Your task to perform on an android device: What is the news today? Image 0: 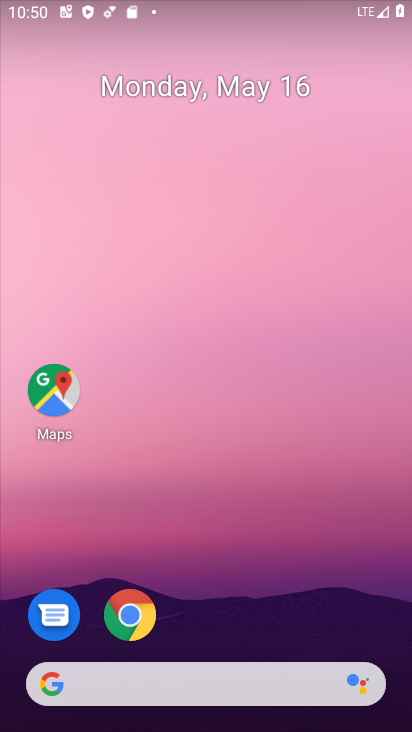
Step 0: drag from (261, 628) to (234, 157)
Your task to perform on an android device: What is the news today? Image 1: 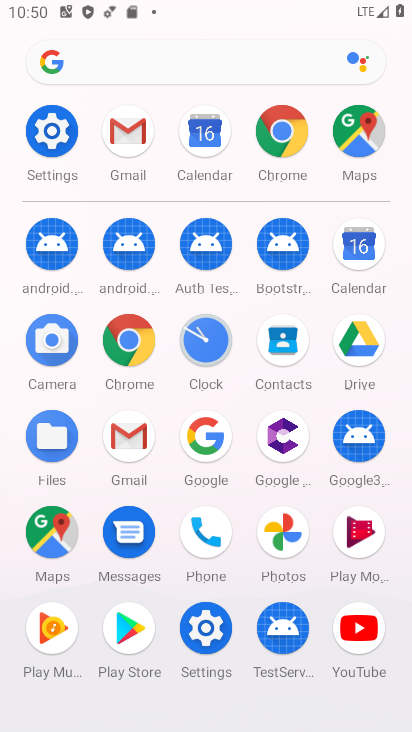
Step 1: click (219, 444)
Your task to perform on an android device: What is the news today? Image 2: 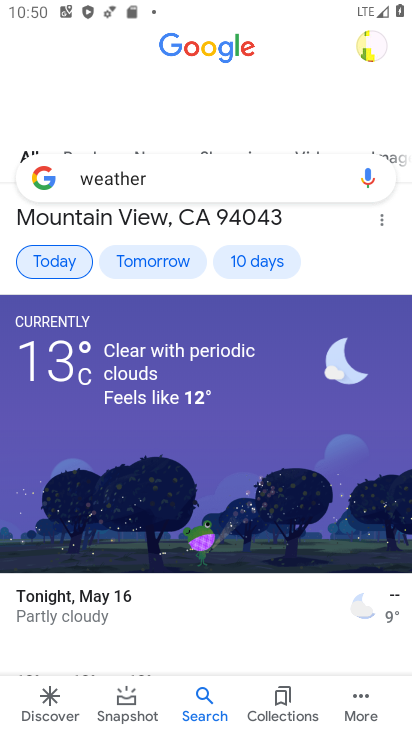
Step 2: click (196, 185)
Your task to perform on an android device: What is the news today? Image 3: 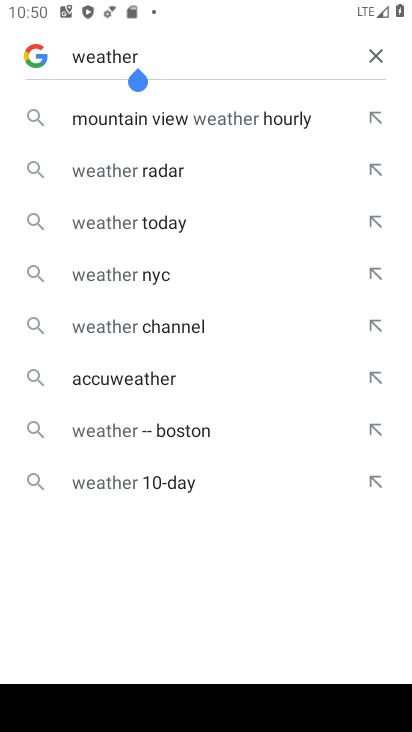
Step 3: click (370, 56)
Your task to perform on an android device: What is the news today? Image 4: 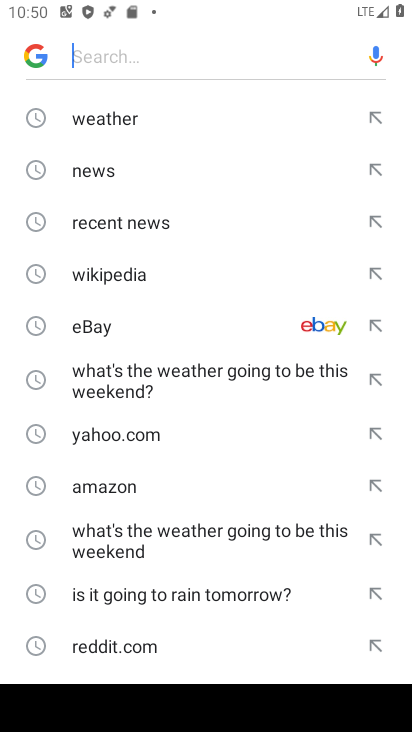
Step 4: click (374, 170)
Your task to perform on an android device: What is the news today? Image 5: 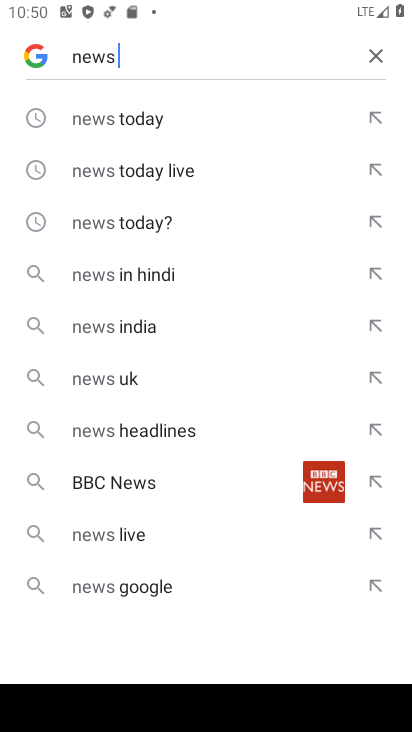
Step 5: click (190, 124)
Your task to perform on an android device: What is the news today? Image 6: 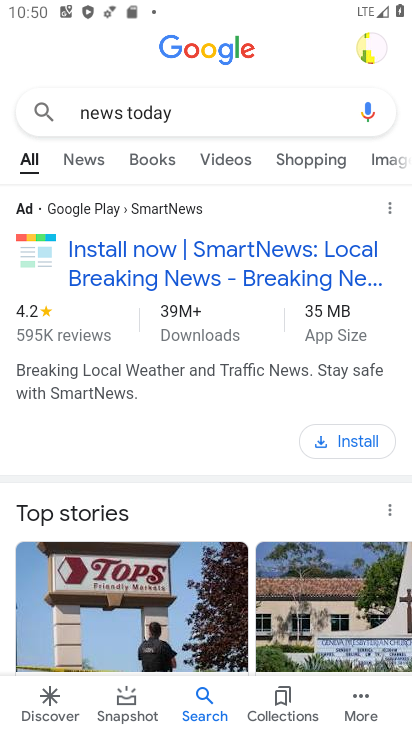
Step 6: click (83, 160)
Your task to perform on an android device: What is the news today? Image 7: 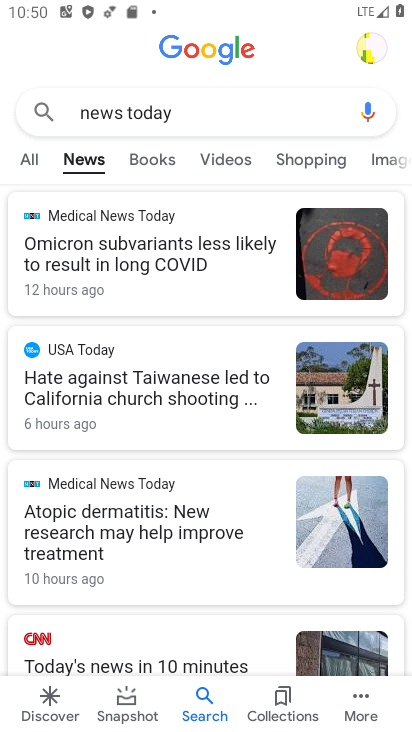
Step 7: task complete